Your task to perform on an android device: How much does a 2 bedroom apartment rent for in Seattle? Image 0: 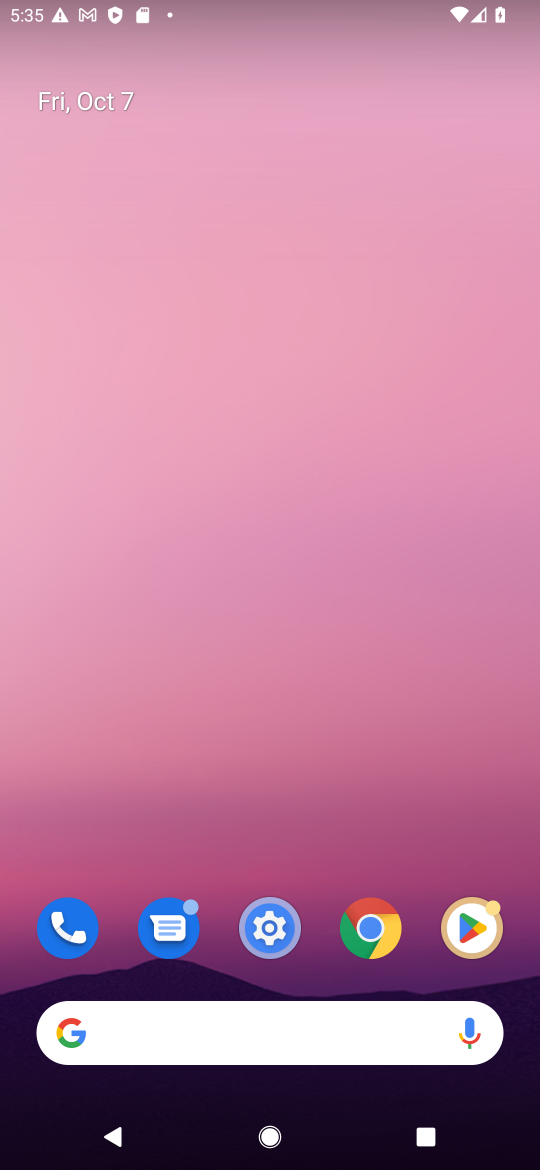
Step 0: drag from (337, 1036) to (213, 114)
Your task to perform on an android device: How much does a 2 bedroom apartment rent for in Seattle? Image 1: 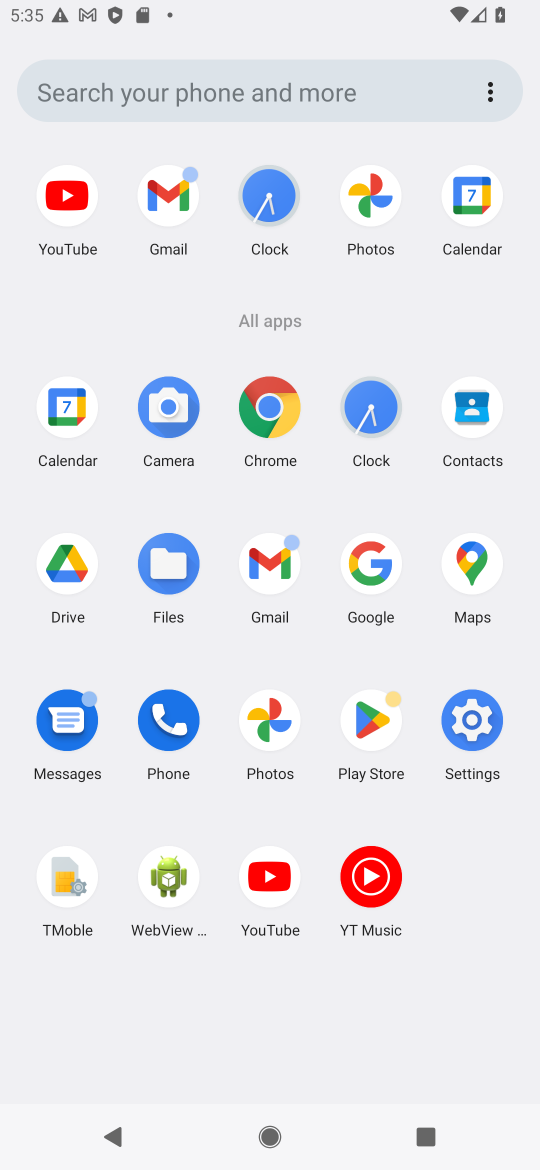
Step 1: click (264, 428)
Your task to perform on an android device: How much does a 2 bedroom apartment rent for in Seattle? Image 2: 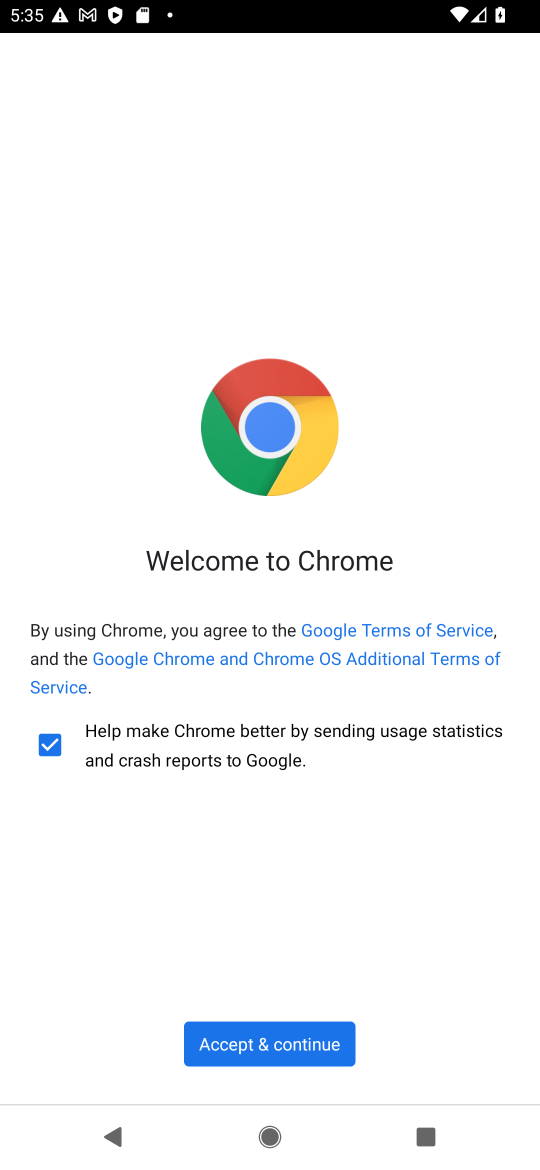
Step 2: click (305, 1060)
Your task to perform on an android device: How much does a 2 bedroom apartment rent for in Seattle? Image 3: 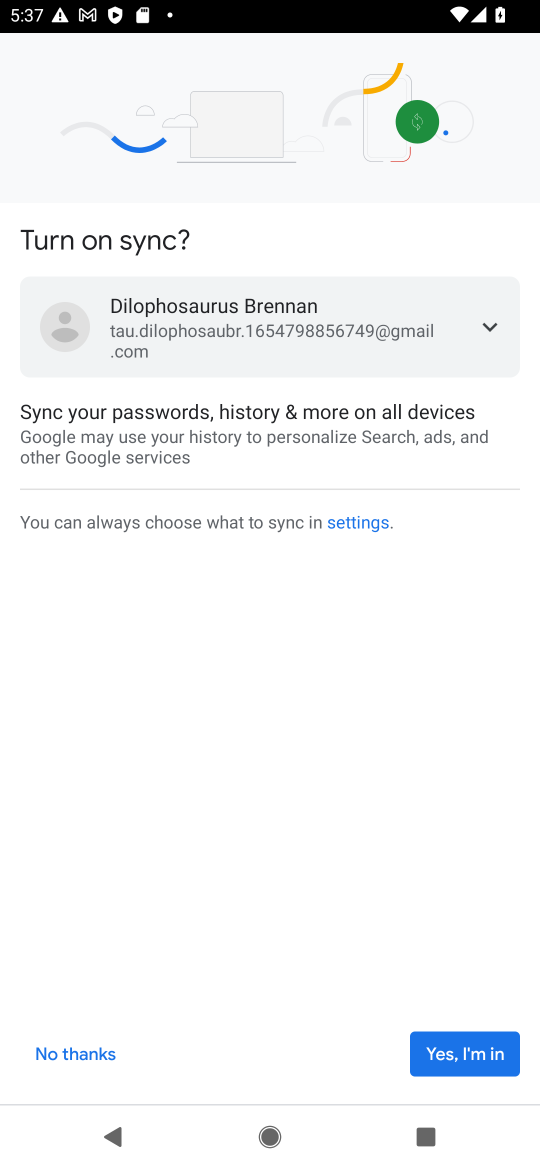
Step 3: click (458, 1042)
Your task to perform on an android device: How much does a 2 bedroom apartment rent for in Seattle? Image 4: 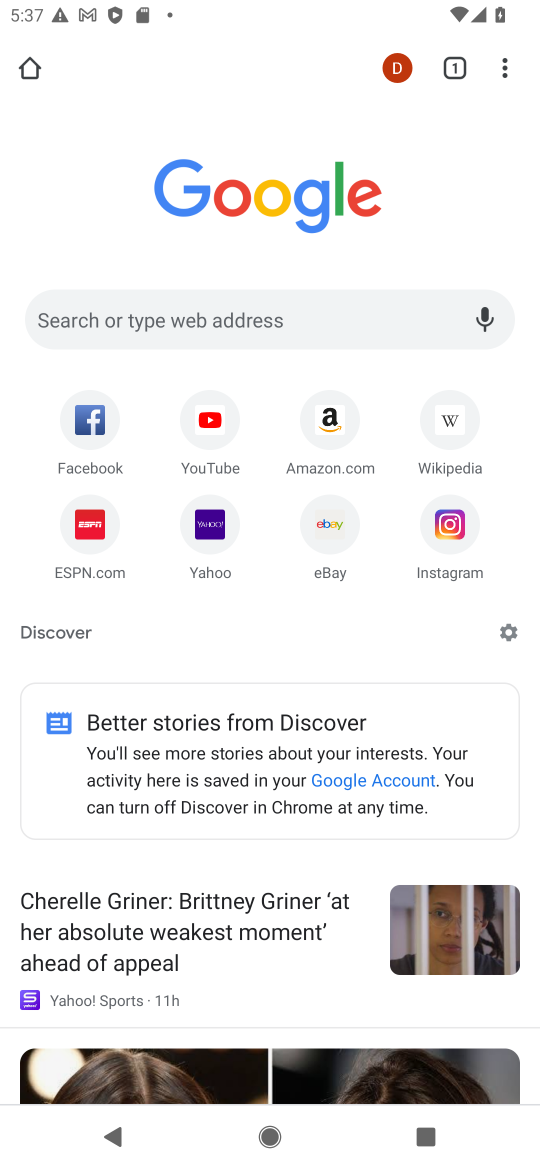
Step 4: click (330, 304)
Your task to perform on an android device: How much does a 2 bedroom apartment rent for in Seattle? Image 5: 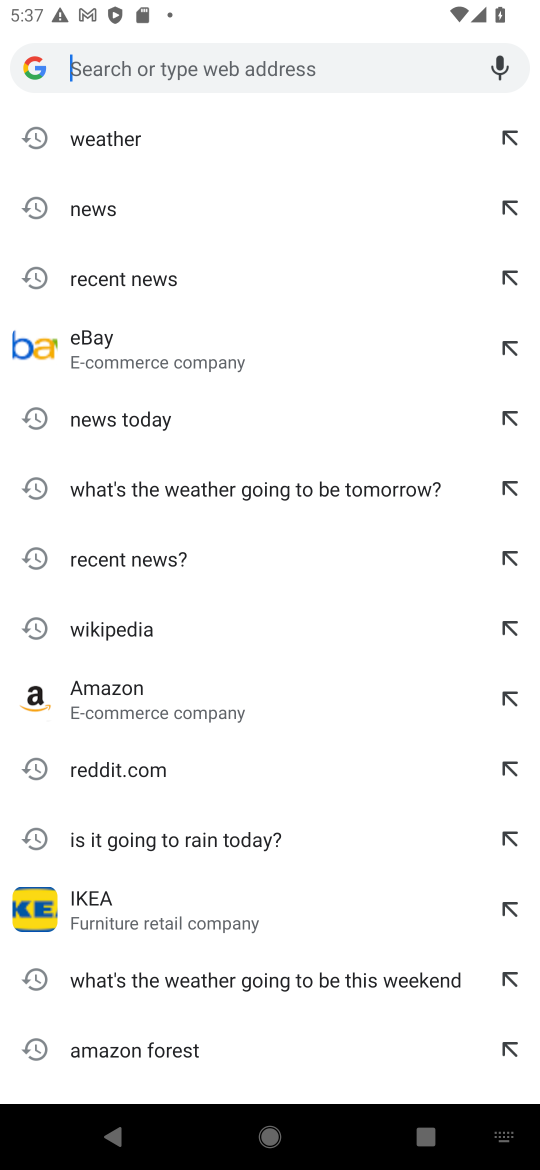
Step 5: type "How much does a 2 bedroom apartment rent for in Seattle?"
Your task to perform on an android device: How much does a 2 bedroom apartment rent for in Seattle? Image 6: 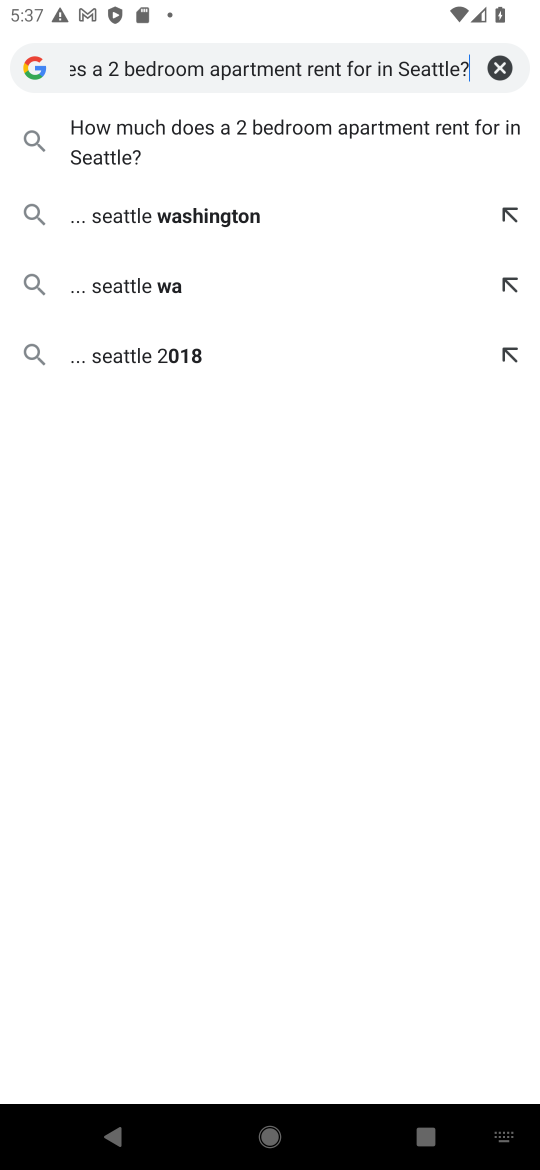
Step 6: click (277, 156)
Your task to perform on an android device: How much does a 2 bedroom apartment rent for in Seattle? Image 7: 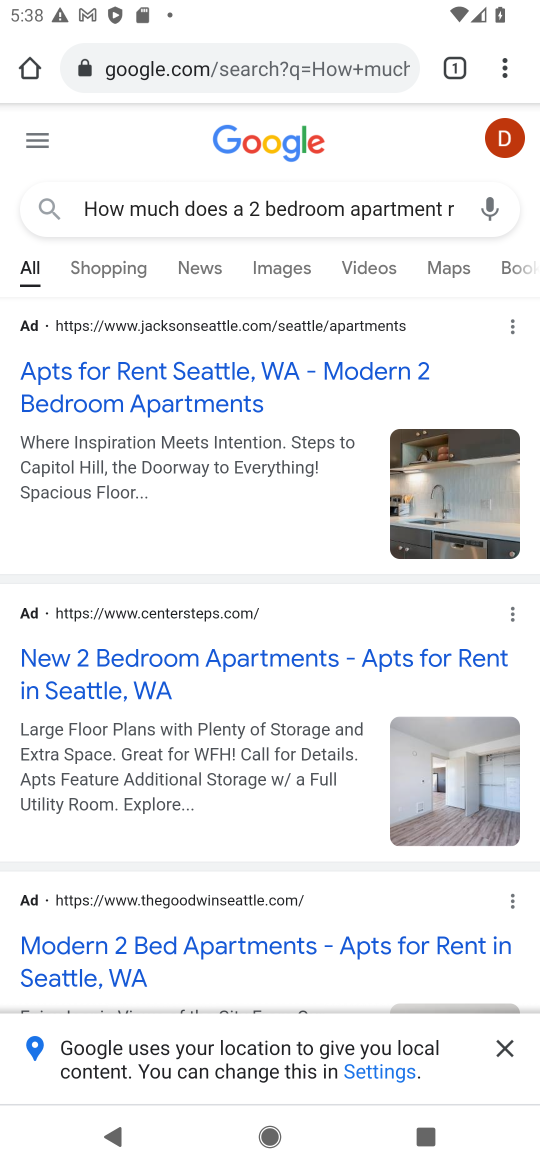
Step 7: task complete